Your task to perform on an android device: When is my next meeting? Image 0: 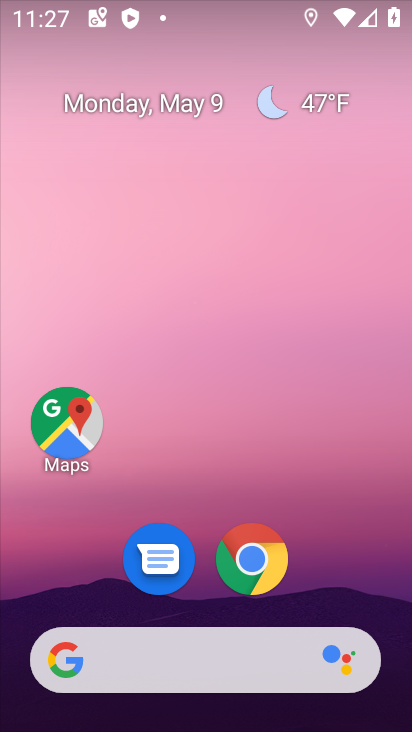
Step 0: drag from (322, 580) to (331, 31)
Your task to perform on an android device: When is my next meeting? Image 1: 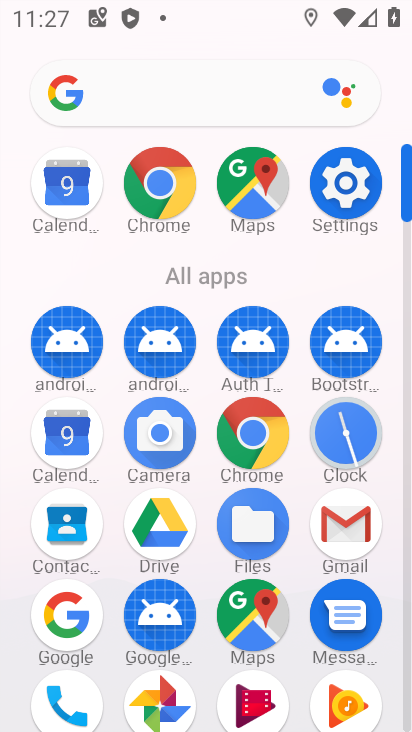
Step 1: click (77, 450)
Your task to perform on an android device: When is my next meeting? Image 2: 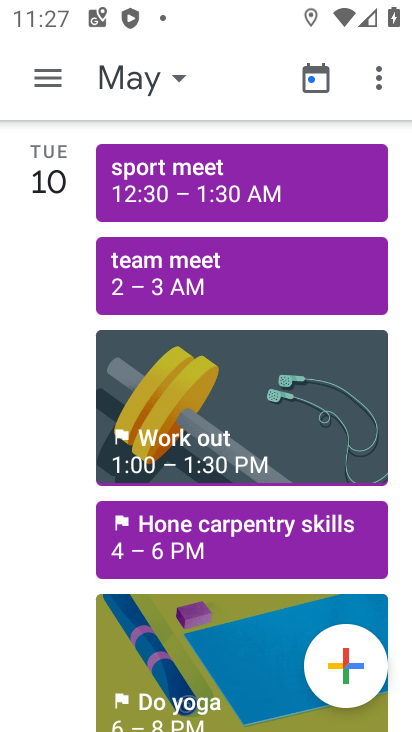
Step 2: click (140, 87)
Your task to perform on an android device: When is my next meeting? Image 3: 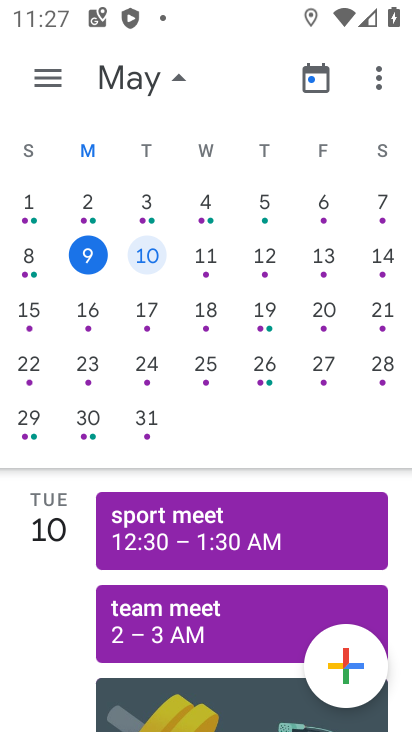
Step 3: click (58, 71)
Your task to perform on an android device: When is my next meeting? Image 4: 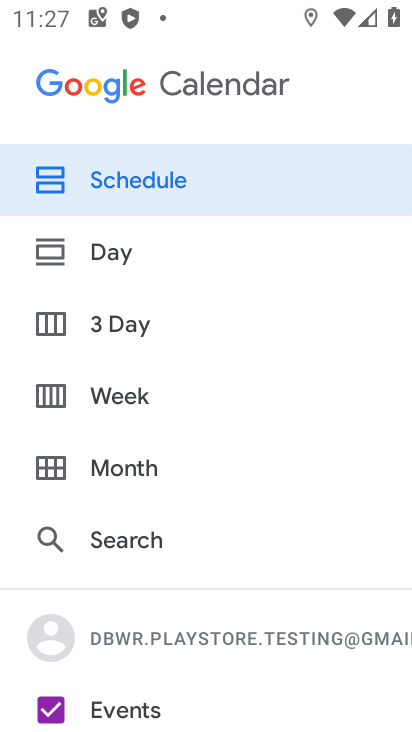
Step 4: click (166, 187)
Your task to perform on an android device: When is my next meeting? Image 5: 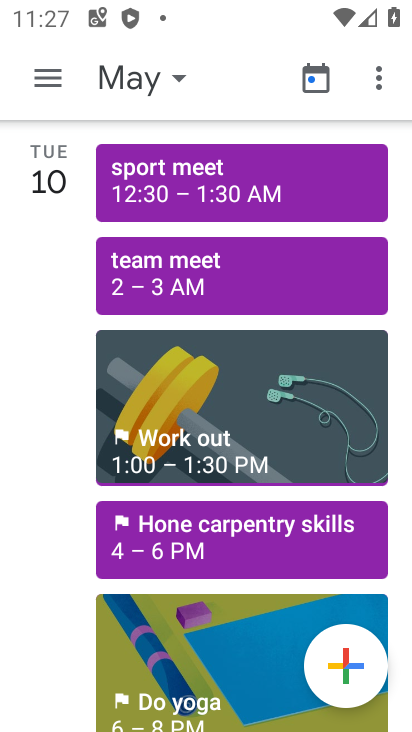
Step 5: task complete